Your task to perform on an android device: What is the news today? Image 0: 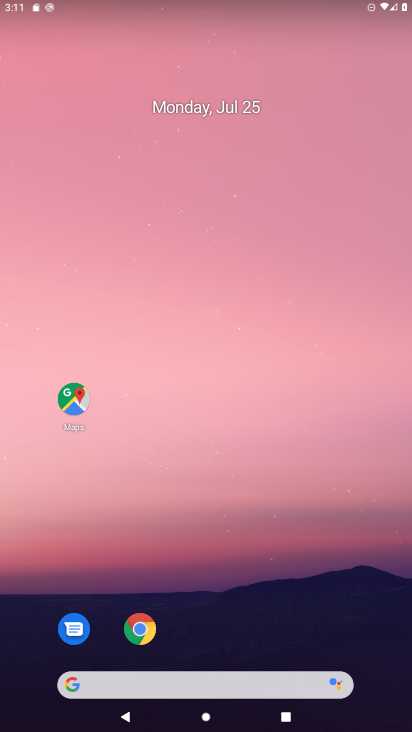
Step 0: click (201, 680)
Your task to perform on an android device: What is the news today? Image 1: 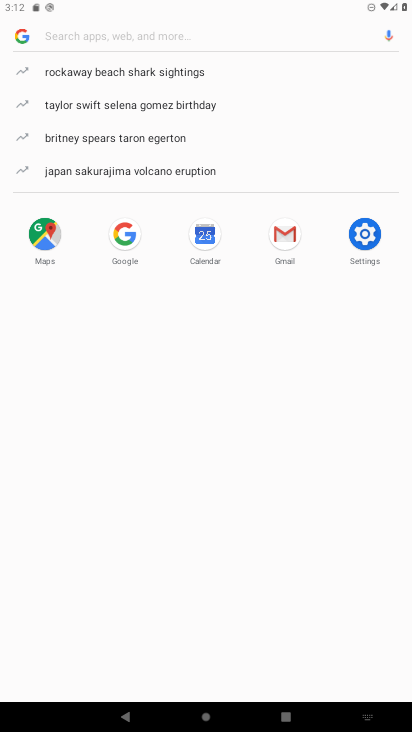
Step 1: type "what is the news today"
Your task to perform on an android device: What is the news today? Image 2: 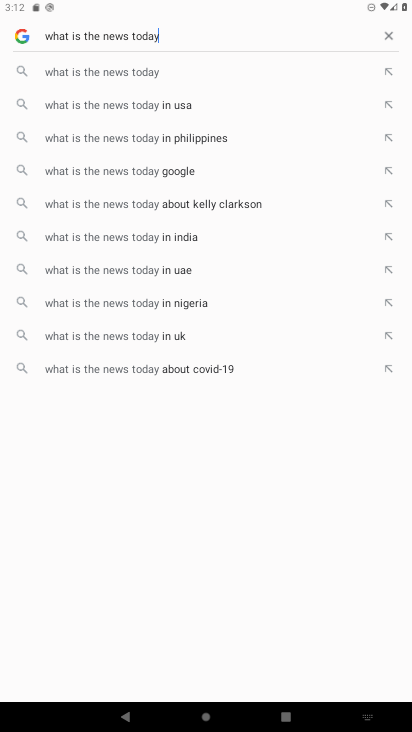
Step 2: click (164, 64)
Your task to perform on an android device: What is the news today? Image 3: 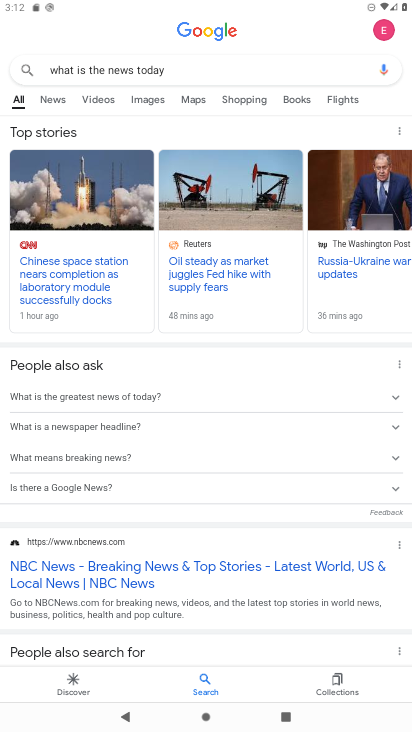
Step 3: click (50, 105)
Your task to perform on an android device: What is the news today? Image 4: 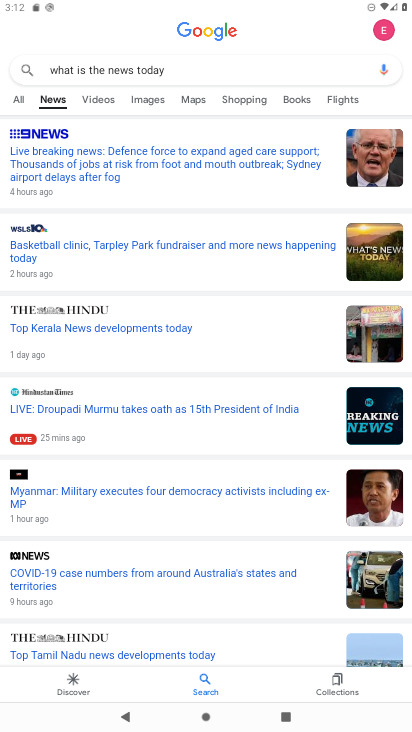
Step 4: task complete